Your task to perform on an android device: What's on my calendar today? Image 0: 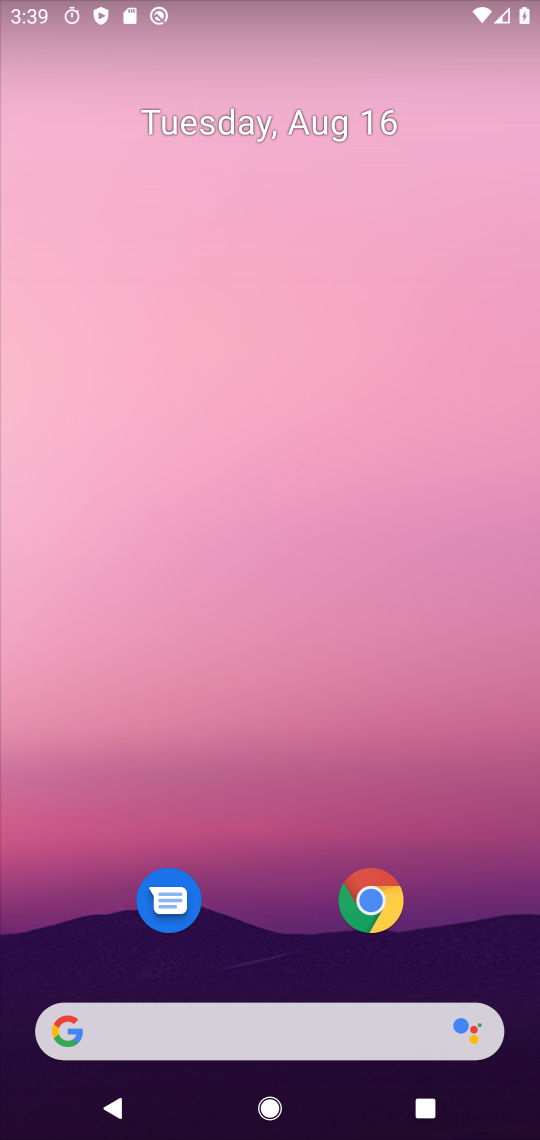
Step 0: drag from (288, 988) to (238, 102)
Your task to perform on an android device: What's on my calendar today? Image 1: 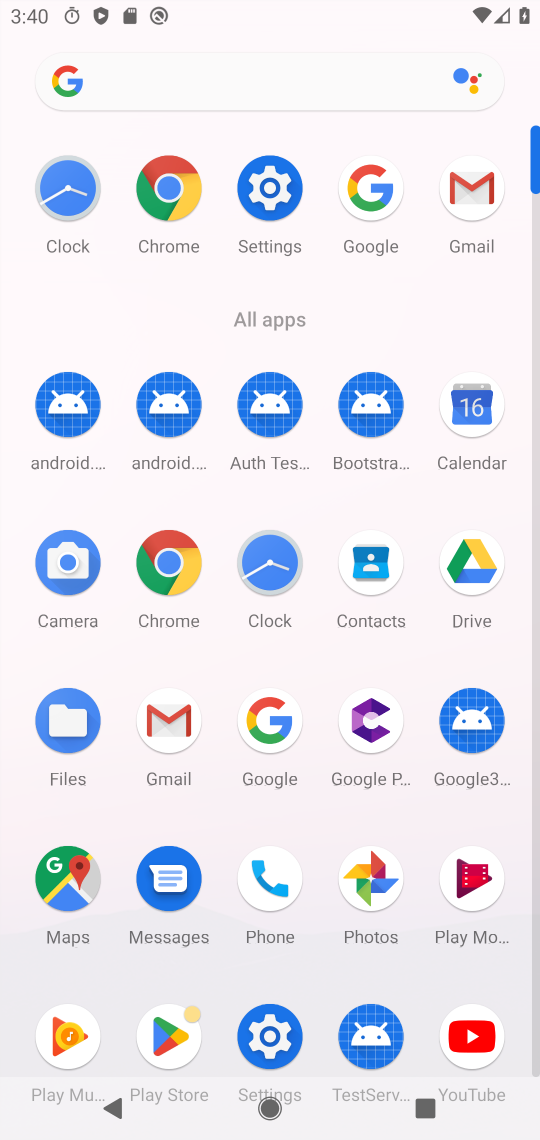
Step 1: click (466, 402)
Your task to perform on an android device: What's on my calendar today? Image 2: 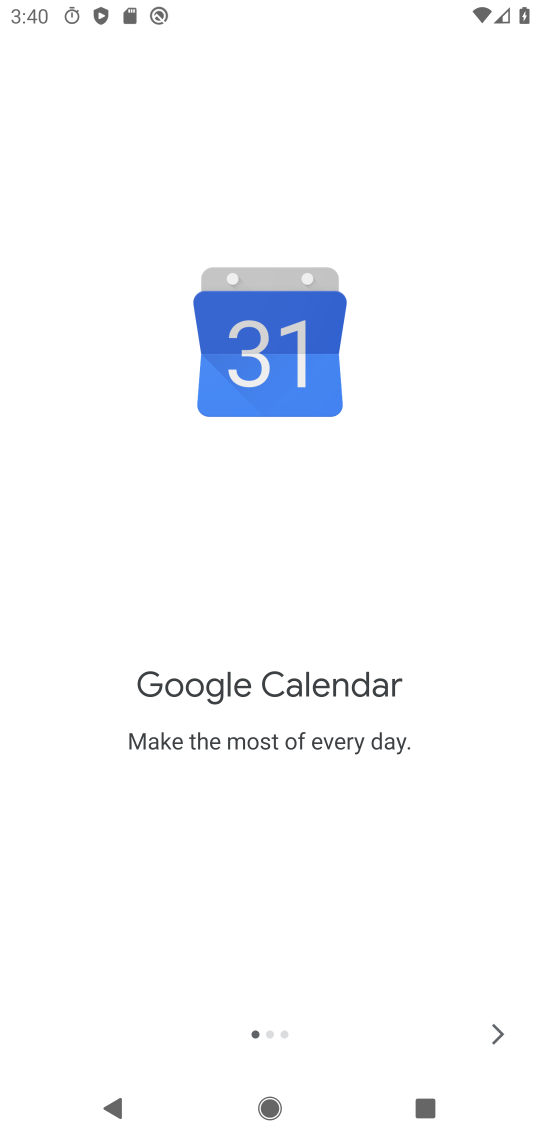
Step 2: click (502, 1033)
Your task to perform on an android device: What's on my calendar today? Image 3: 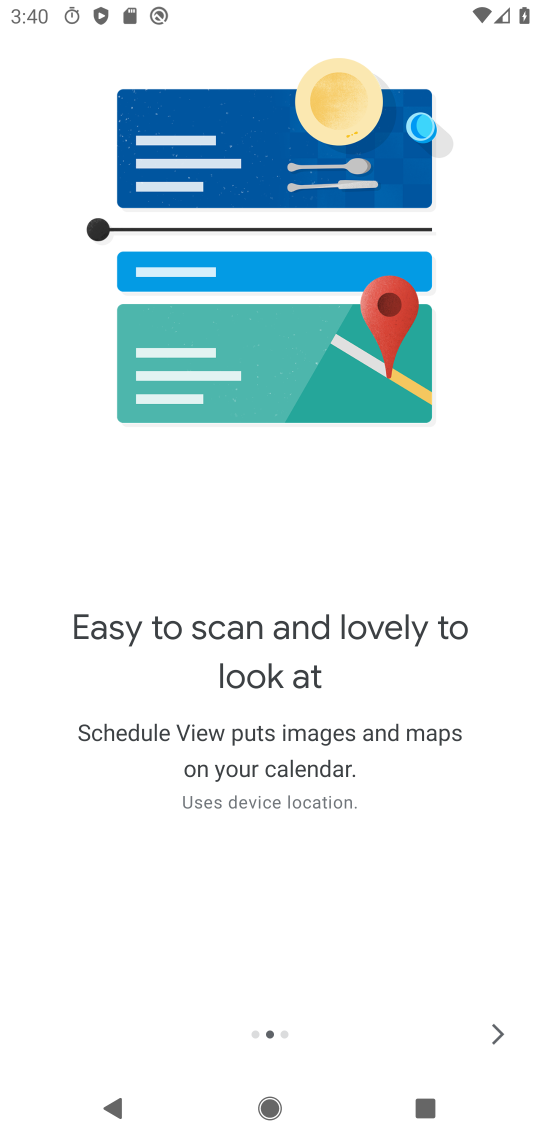
Step 3: click (502, 1033)
Your task to perform on an android device: What's on my calendar today? Image 4: 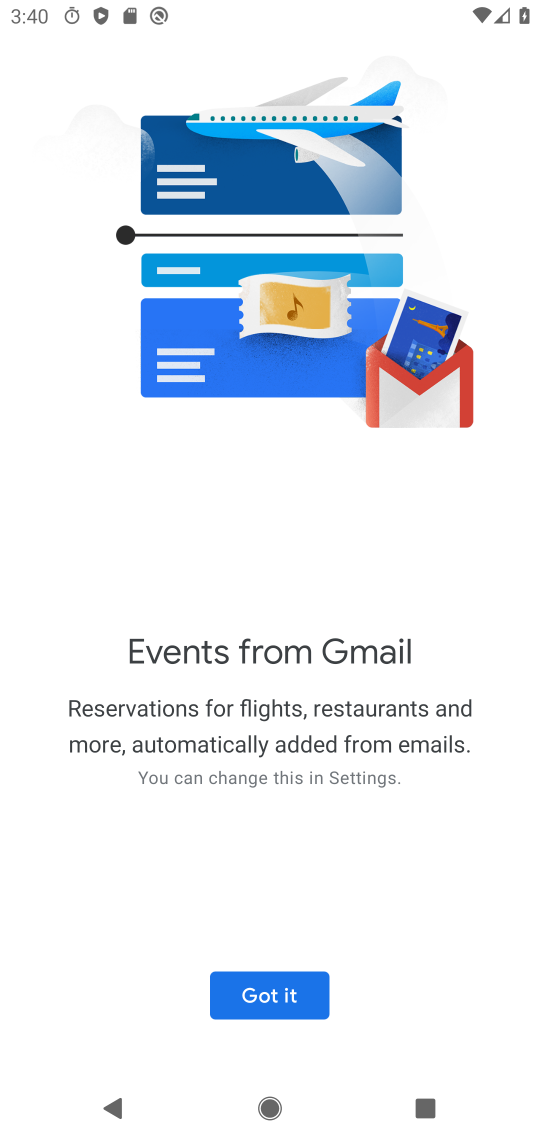
Step 4: click (246, 1004)
Your task to perform on an android device: What's on my calendar today? Image 5: 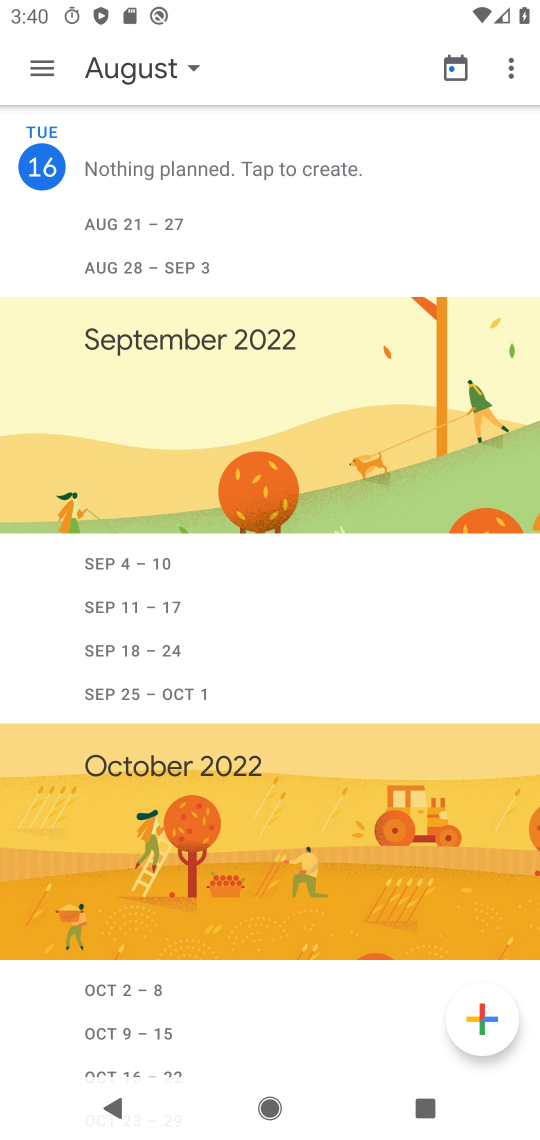
Step 5: task complete